Your task to perform on an android device: turn notification dots on Image 0: 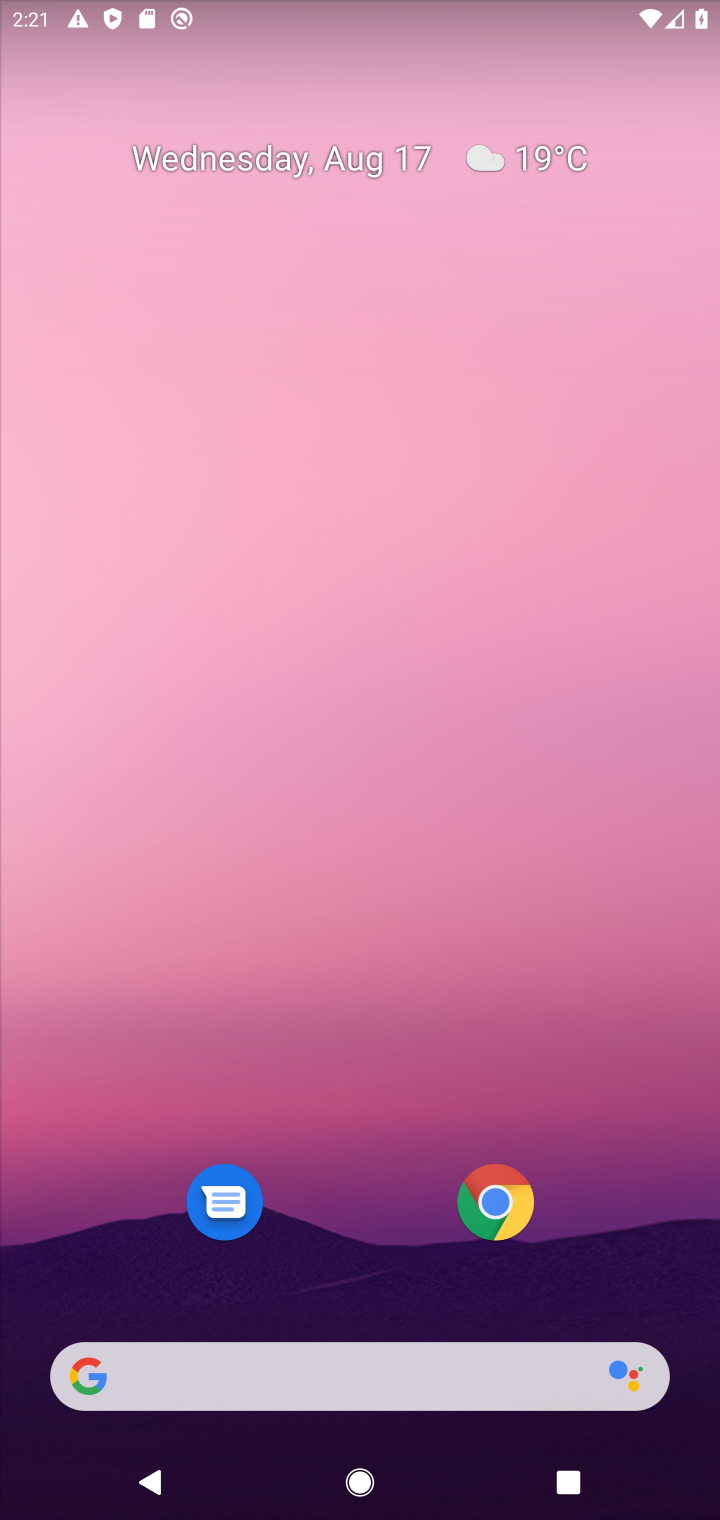
Step 0: press home button
Your task to perform on an android device: turn notification dots on Image 1: 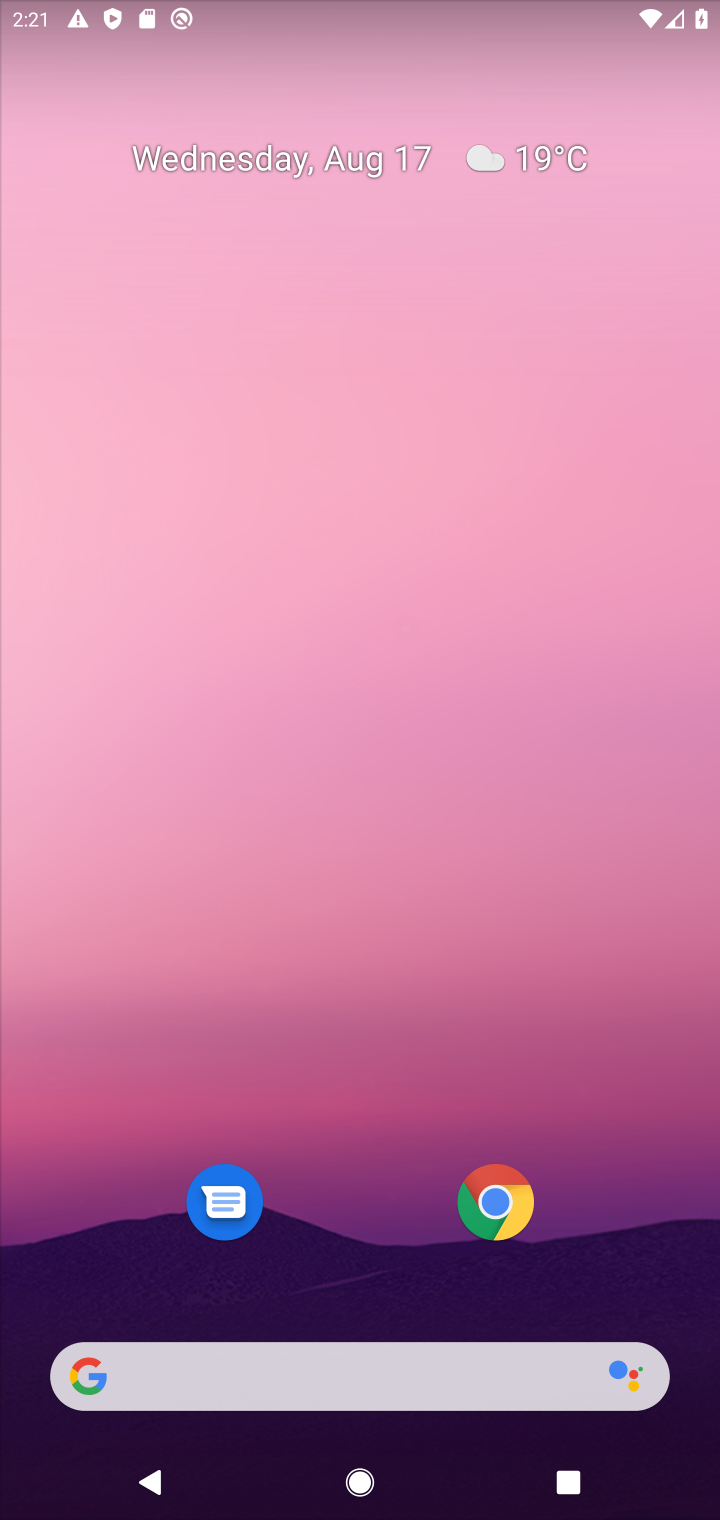
Step 1: click (402, 106)
Your task to perform on an android device: turn notification dots on Image 2: 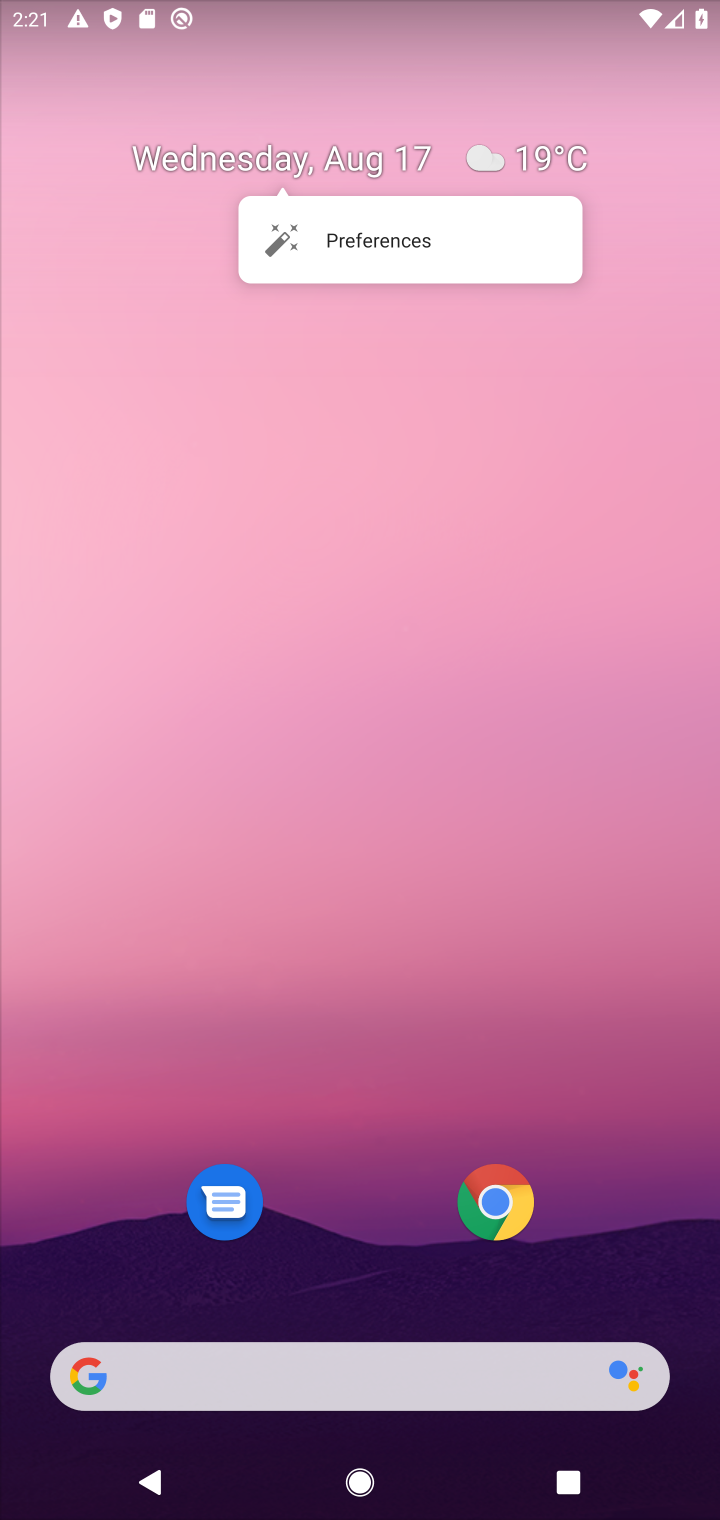
Step 2: click (382, 535)
Your task to perform on an android device: turn notification dots on Image 3: 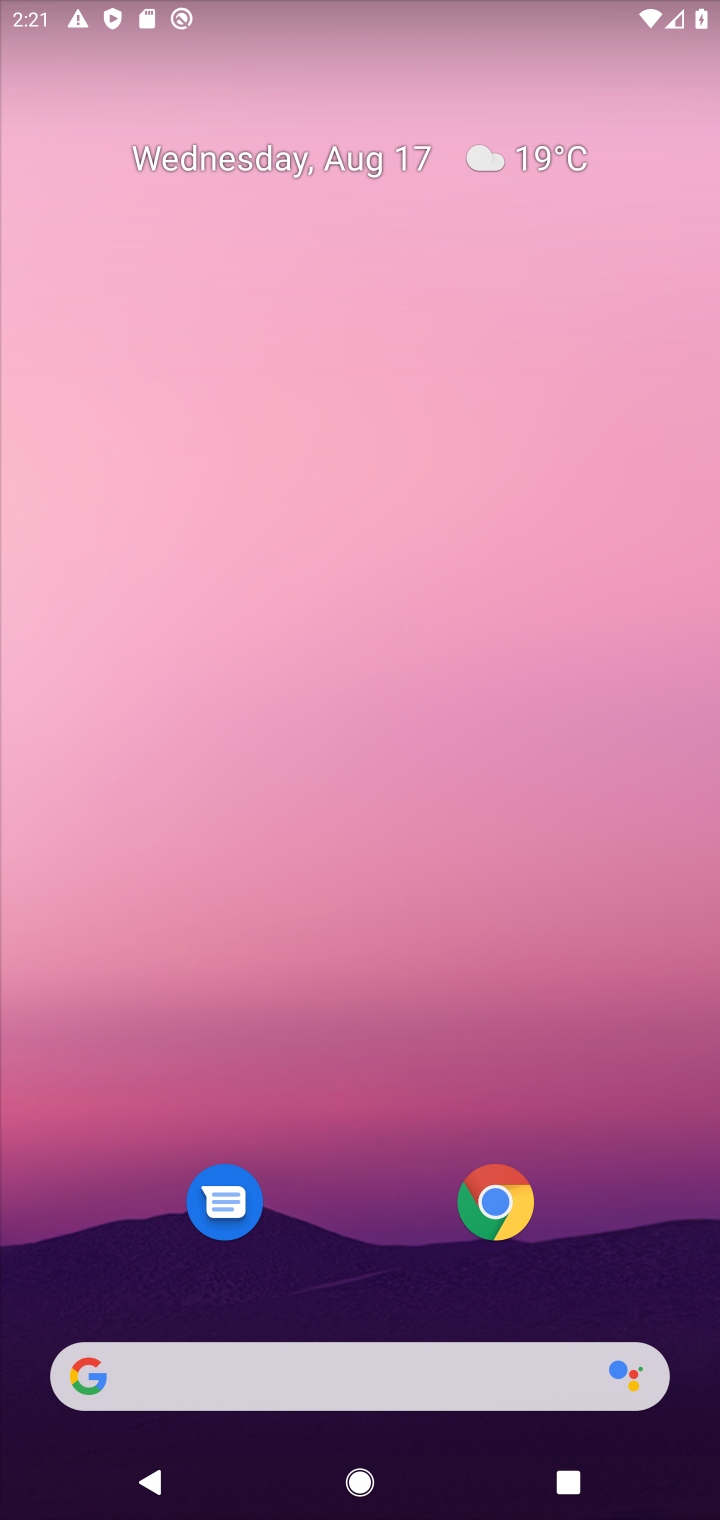
Step 3: drag from (368, 935) to (506, 13)
Your task to perform on an android device: turn notification dots on Image 4: 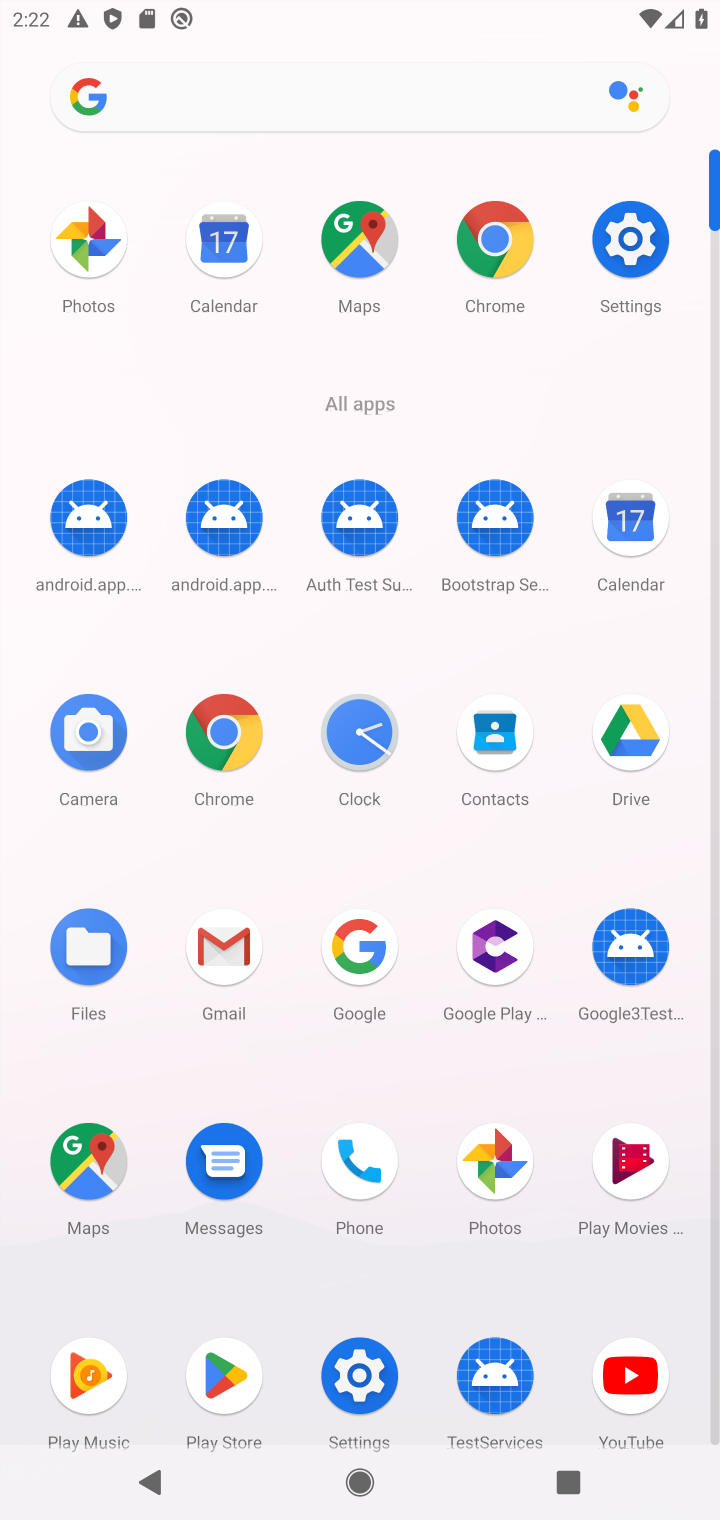
Step 4: click (643, 280)
Your task to perform on an android device: turn notification dots on Image 5: 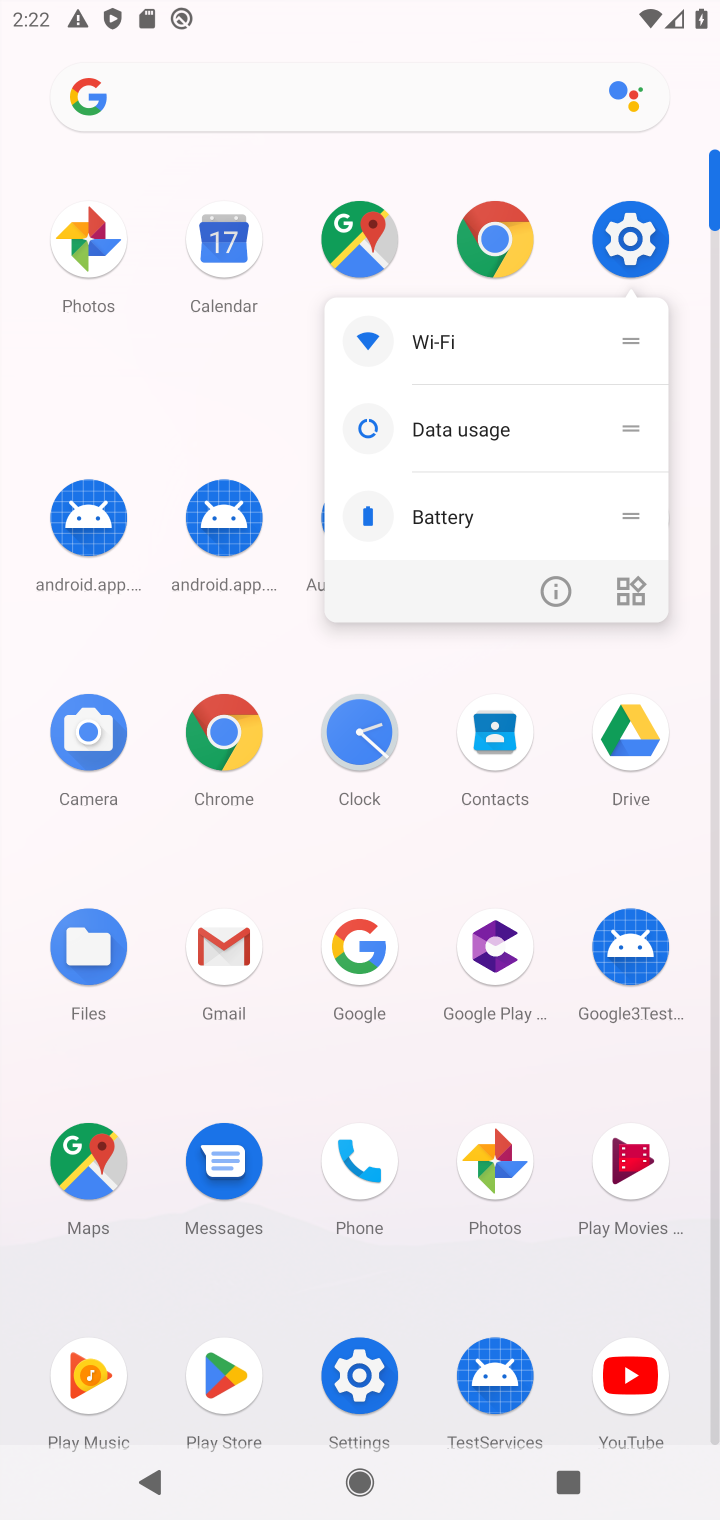
Step 5: click (627, 238)
Your task to perform on an android device: turn notification dots on Image 6: 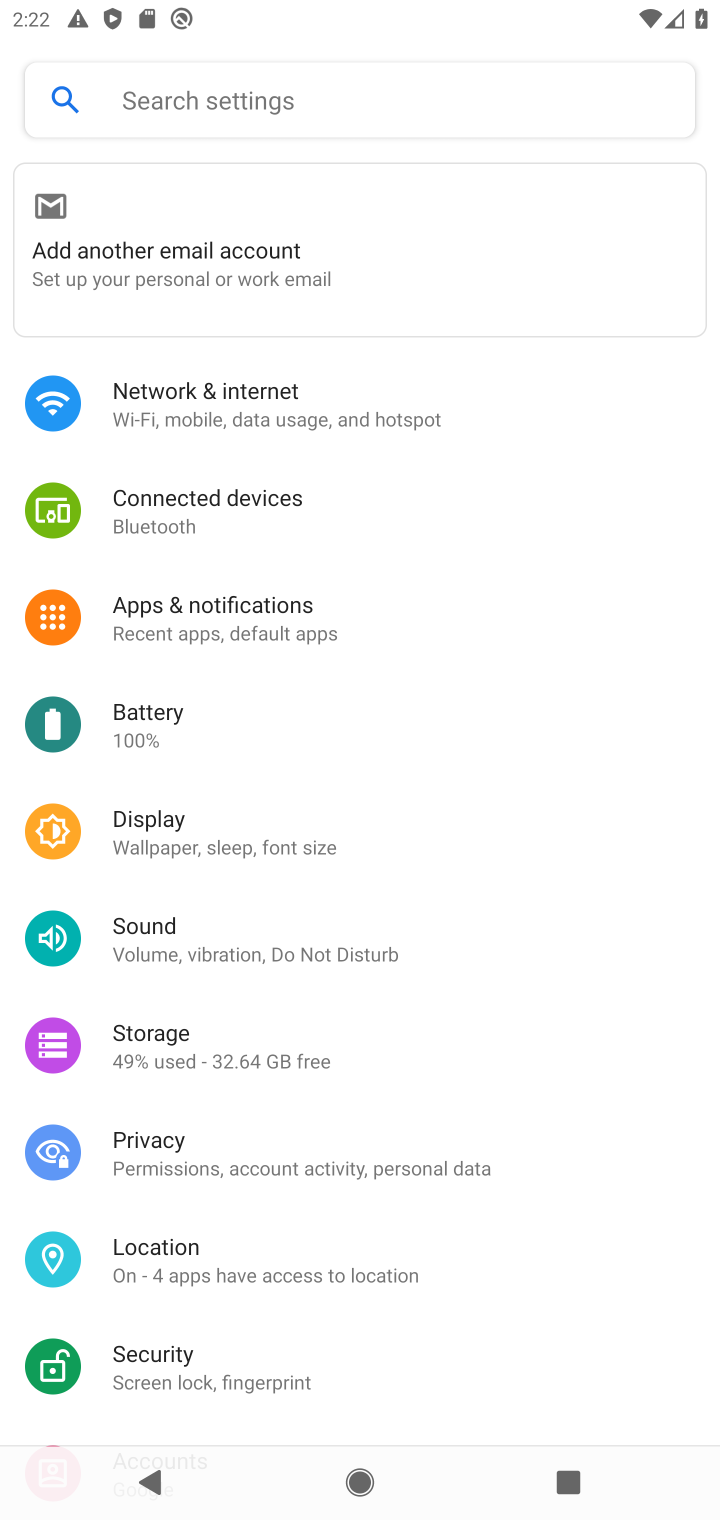
Step 6: click (252, 622)
Your task to perform on an android device: turn notification dots on Image 7: 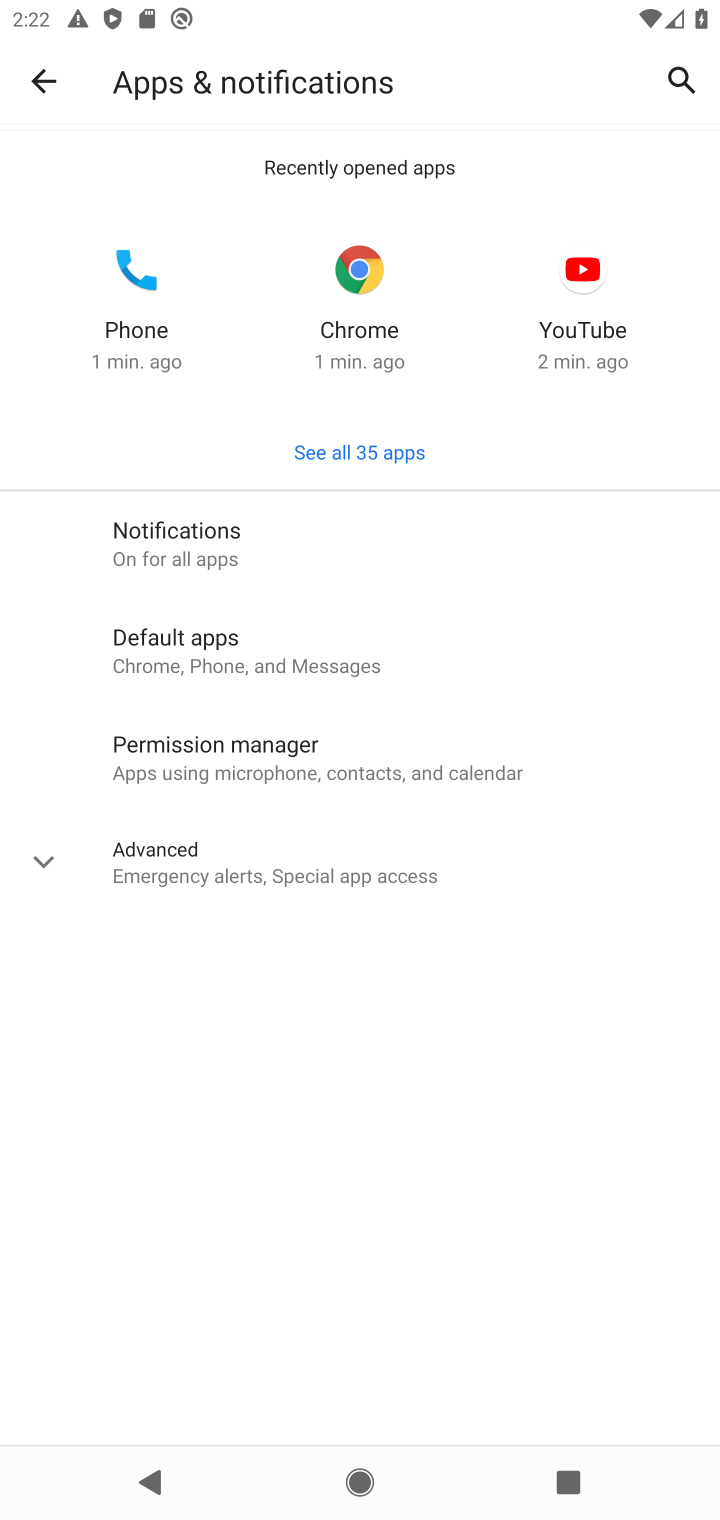
Step 7: click (216, 546)
Your task to perform on an android device: turn notification dots on Image 8: 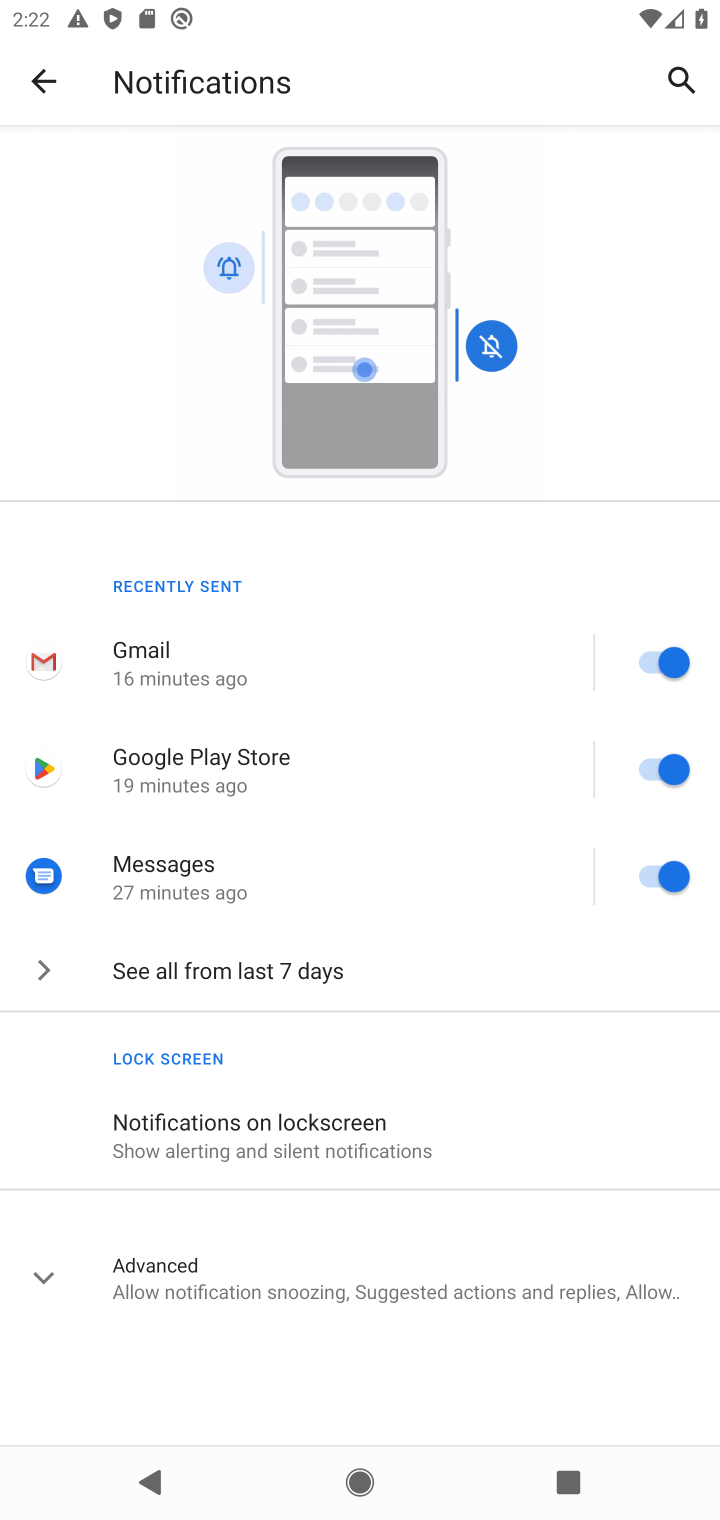
Step 8: click (278, 1267)
Your task to perform on an android device: turn notification dots on Image 9: 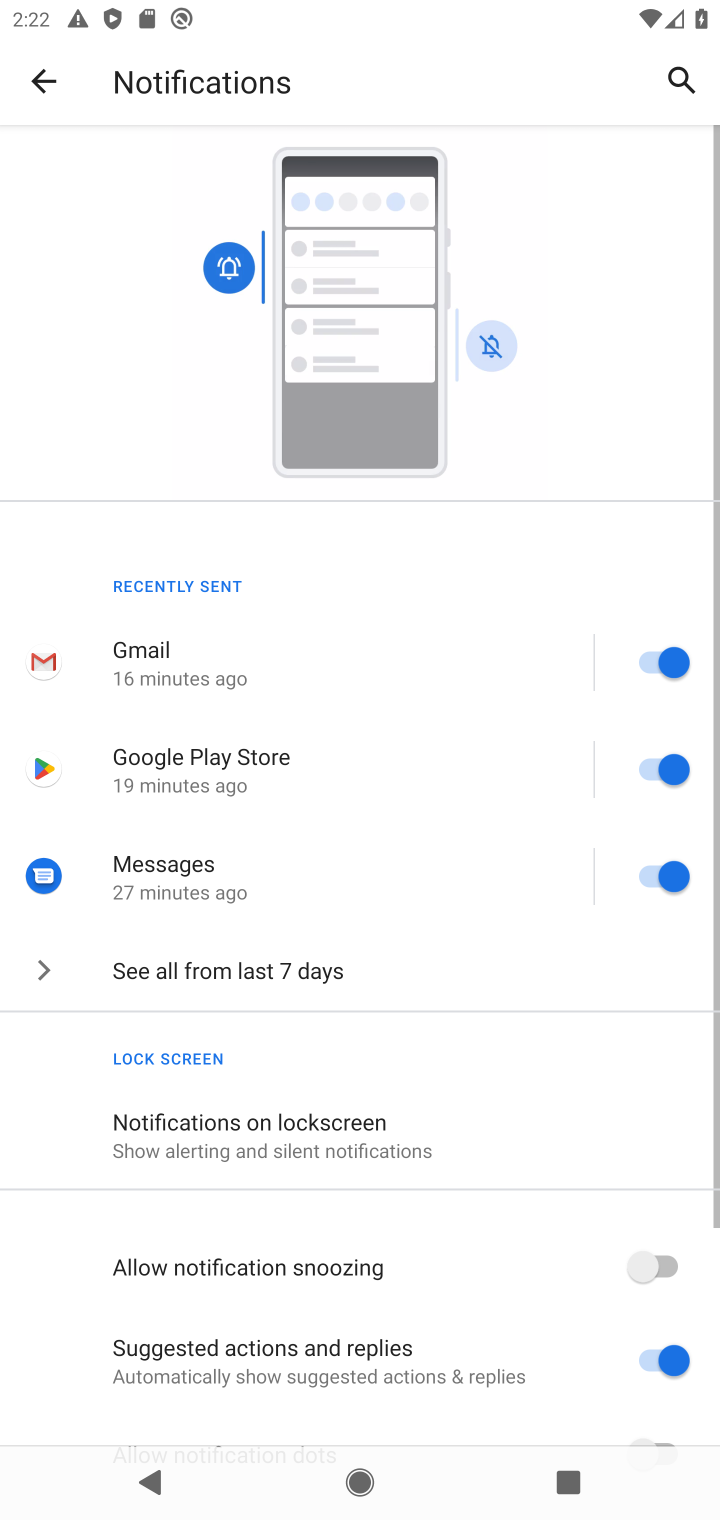
Step 9: drag from (260, 1173) to (365, 421)
Your task to perform on an android device: turn notification dots on Image 10: 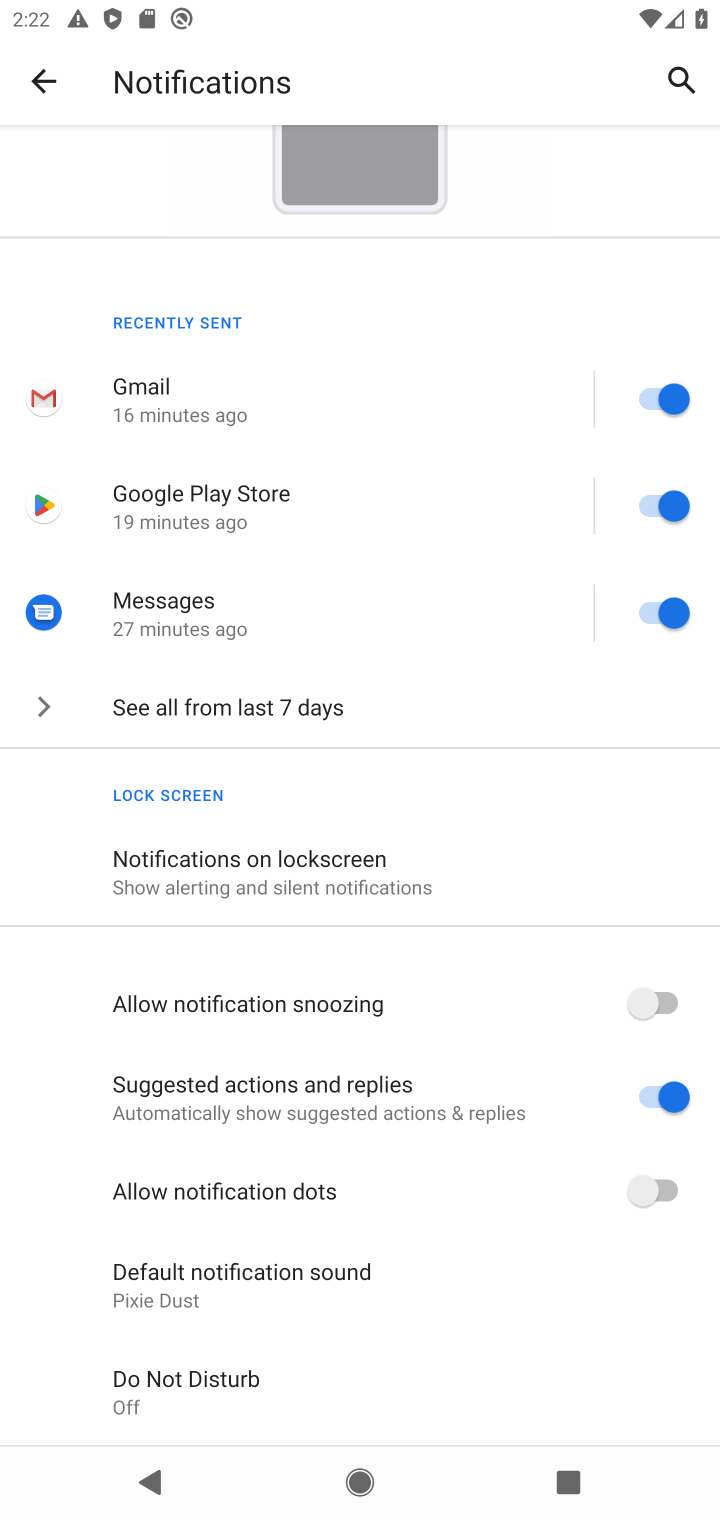
Step 10: click (586, 1209)
Your task to perform on an android device: turn notification dots on Image 11: 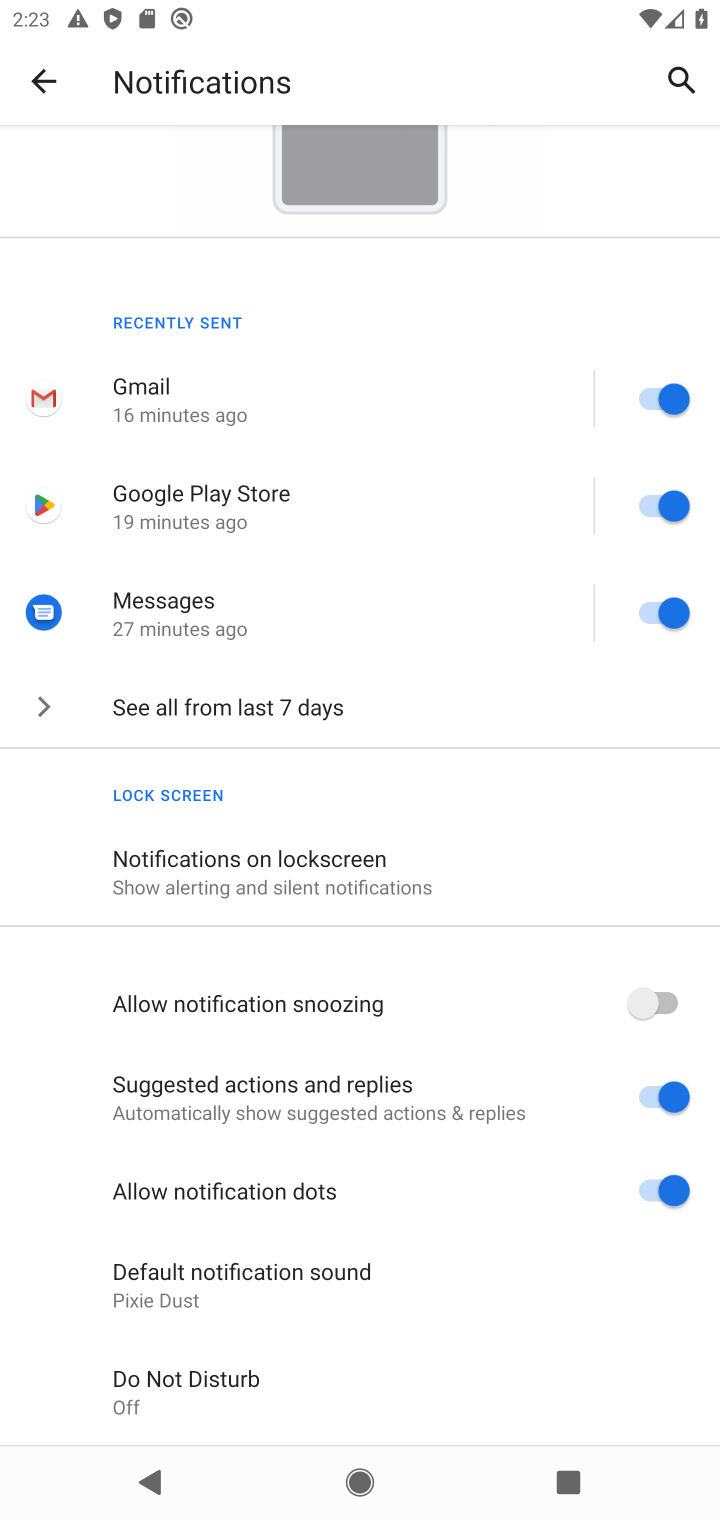
Step 11: task complete